Your task to perform on an android device: toggle notifications settings in the gmail app Image 0: 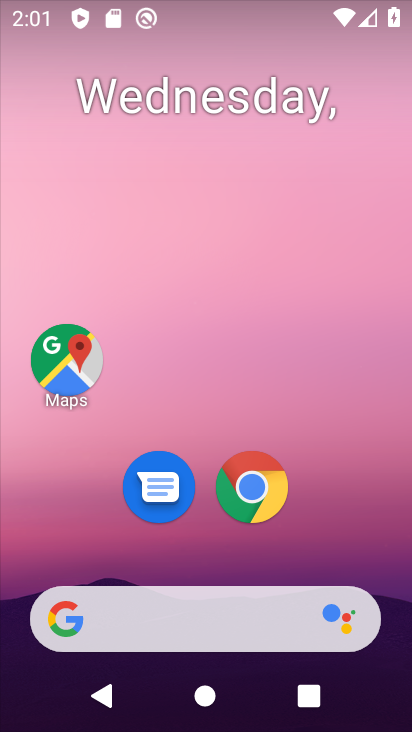
Step 0: drag from (212, 548) to (240, 64)
Your task to perform on an android device: toggle notifications settings in the gmail app Image 1: 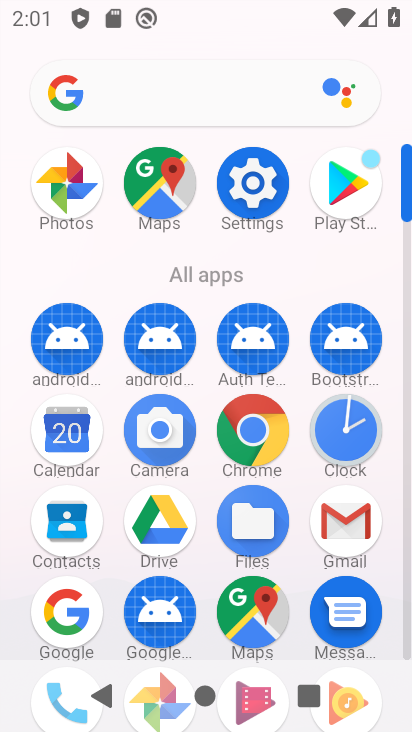
Step 1: click (252, 170)
Your task to perform on an android device: toggle notifications settings in the gmail app Image 2: 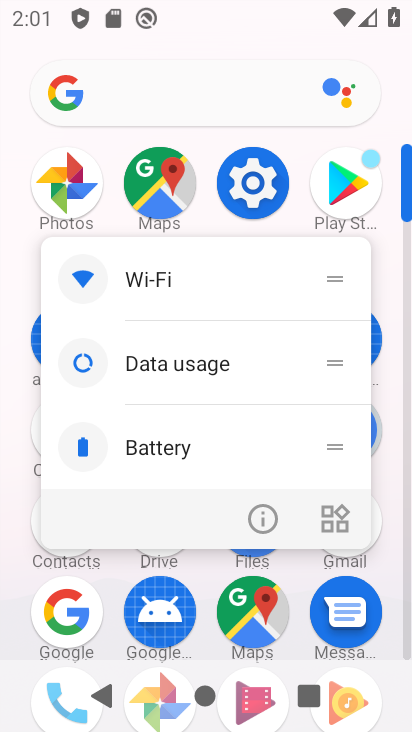
Step 2: click (151, 642)
Your task to perform on an android device: toggle notifications settings in the gmail app Image 3: 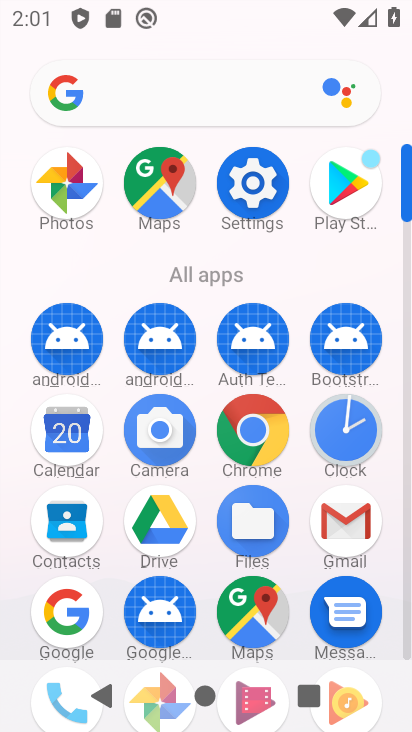
Step 3: click (344, 510)
Your task to perform on an android device: toggle notifications settings in the gmail app Image 4: 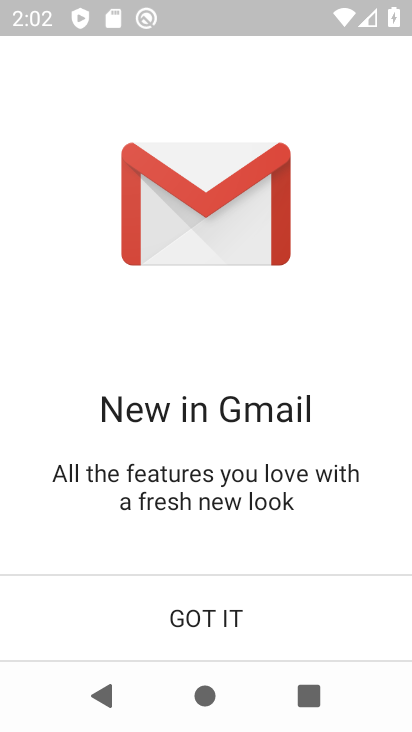
Step 4: click (225, 619)
Your task to perform on an android device: toggle notifications settings in the gmail app Image 5: 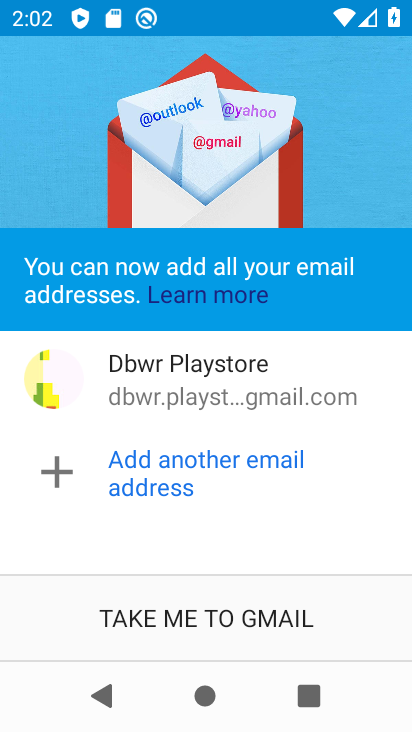
Step 5: click (225, 619)
Your task to perform on an android device: toggle notifications settings in the gmail app Image 6: 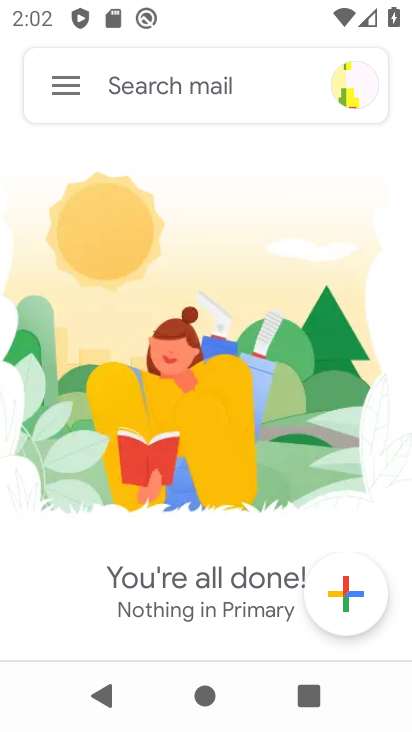
Step 6: click (69, 85)
Your task to perform on an android device: toggle notifications settings in the gmail app Image 7: 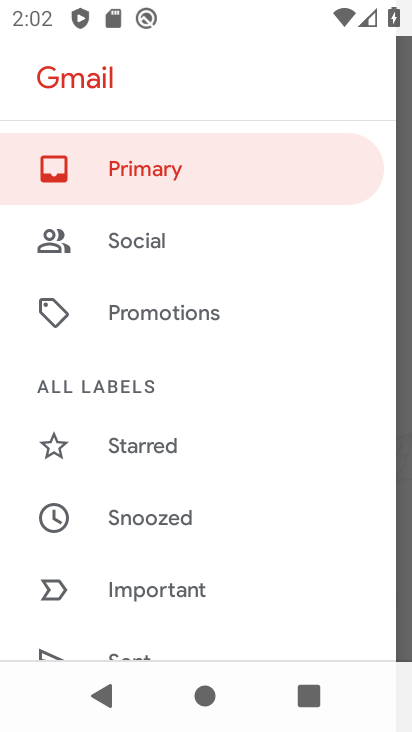
Step 7: drag from (169, 609) to (203, 261)
Your task to perform on an android device: toggle notifications settings in the gmail app Image 8: 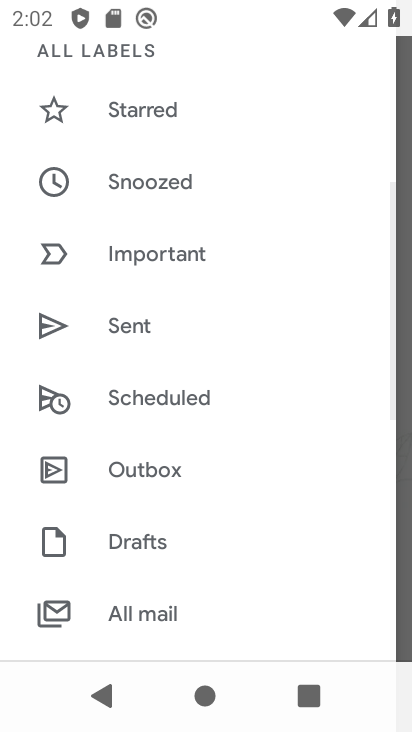
Step 8: drag from (227, 461) to (212, 178)
Your task to perform on an android device: toggle notifications settings in the gmail app Image 9: 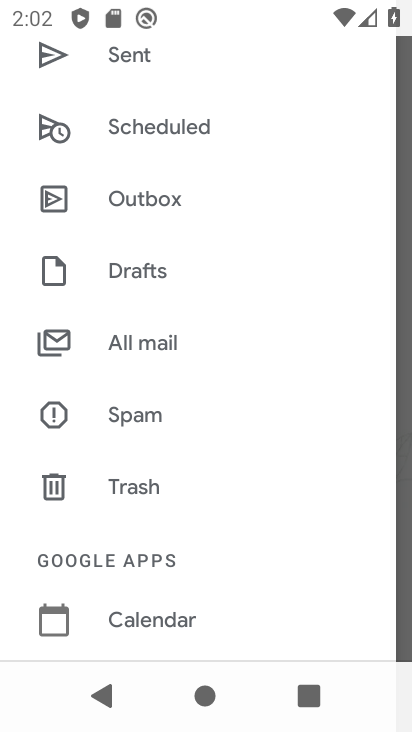
Step 9: drag from (187, 566) to (196, 221)
Your task to perform on an android device: toggle notifications settings in the gmail app Image 10: 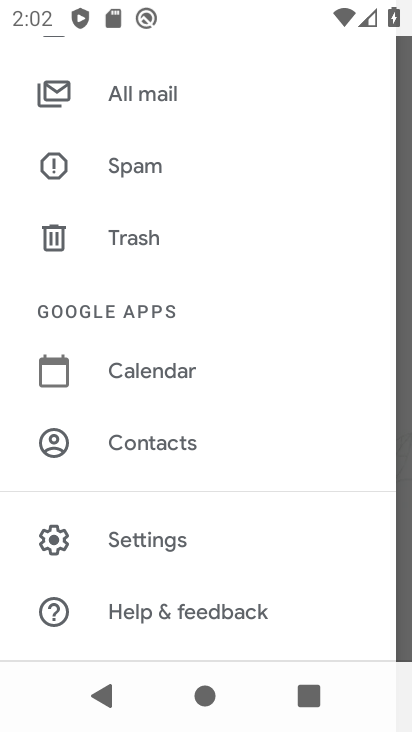
Step 10: click (172, 551)
Your task to perform on an android device: toggle notifications settings in the gmail app Image 11: 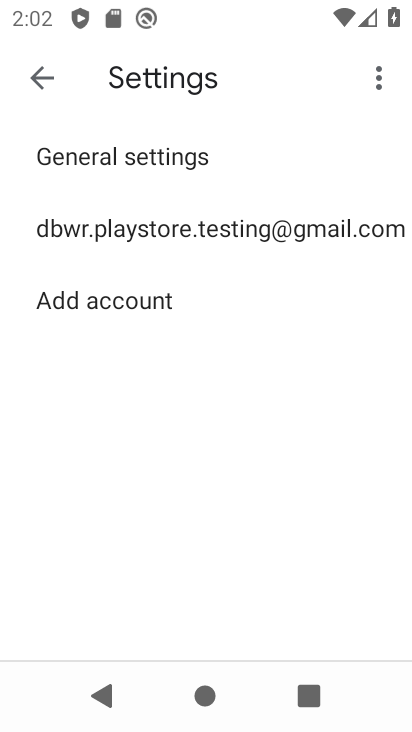
Step 11: click (165, 161)
Your task to perform on an android device: toggle notifications settings in the gmail app Image 12: 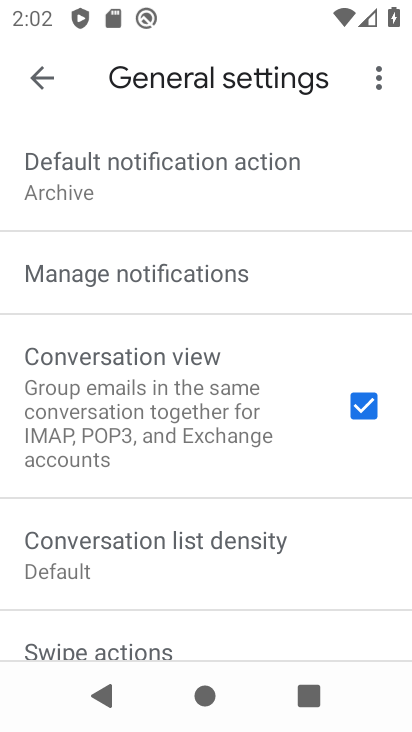
Step 12: drag from (176, 552) to (172, 423)
Your task to perform on an android device: toggle notifications settings in the gmail app Image 13: 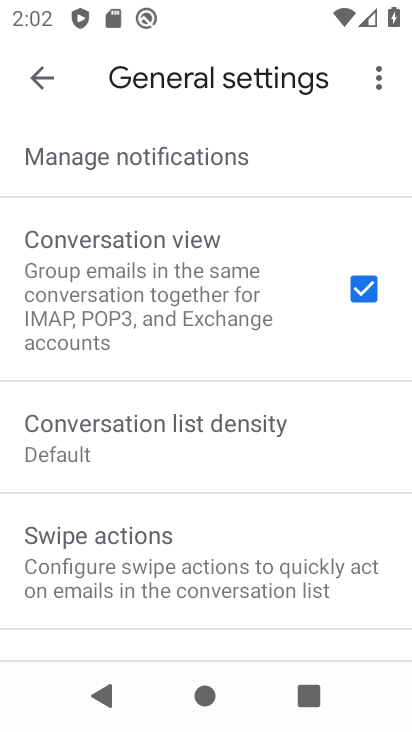
Step 13: click (174, 186)
Your task to perform on an android device: toggle notifications settings in the gmail app Image 14: 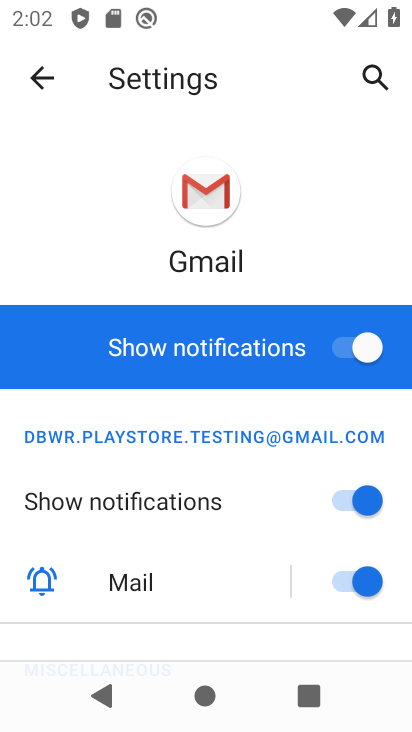
Step 14: task complete